Your task to perform on an android device: create a new album in the google photos Image 0: 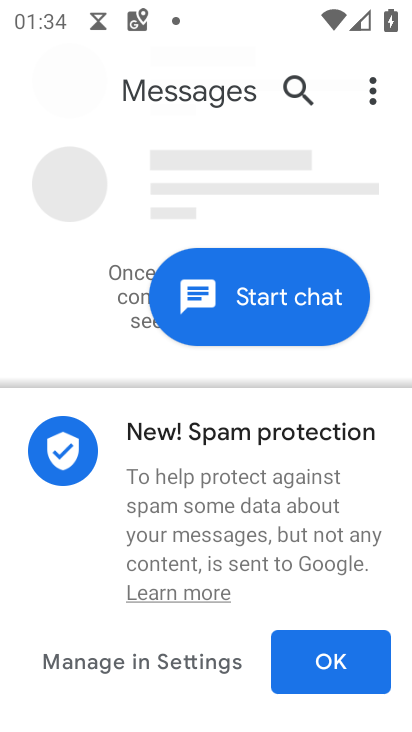
Step 0: press home button
Your task to perform on an android device: create a new album in the google photos Image 1: 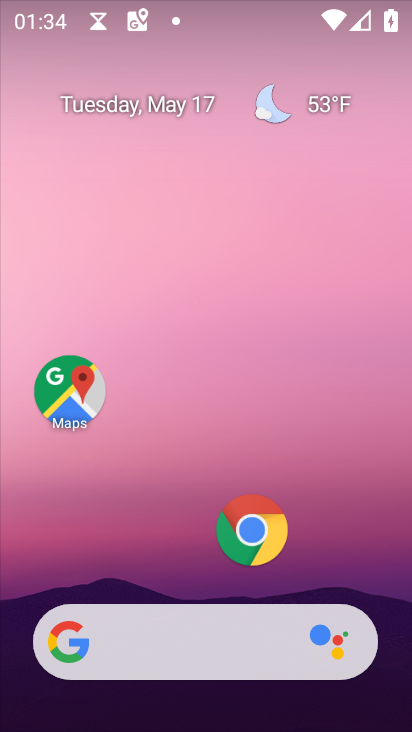
Step 1: drag from (317, 588) to (272, 148)
Your task to perform on an android device: create a new album in the google photos Image 2: 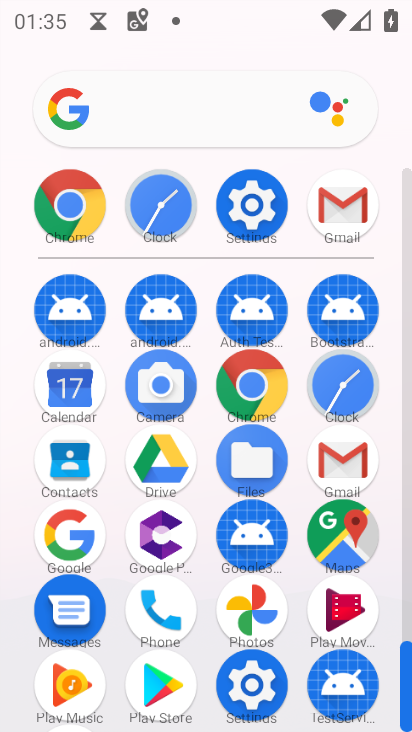
Step 2: click (260, 591)
Your task to perform on an android device: create a new album in the google photos Image 3: 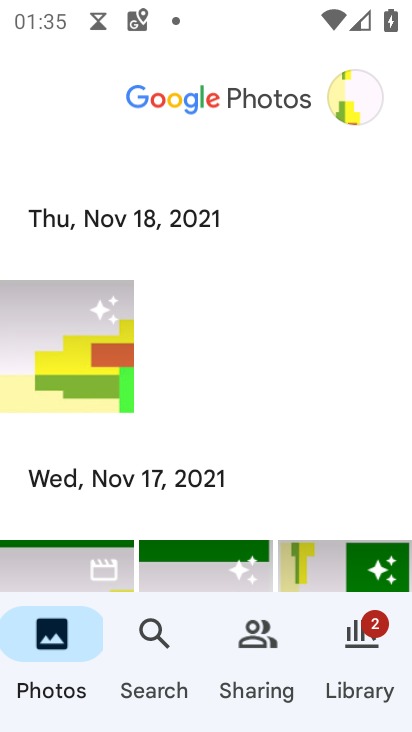
Step 3: click (367, 652)
Your task to perform on an android device: create a new album in the google photos Image 4: 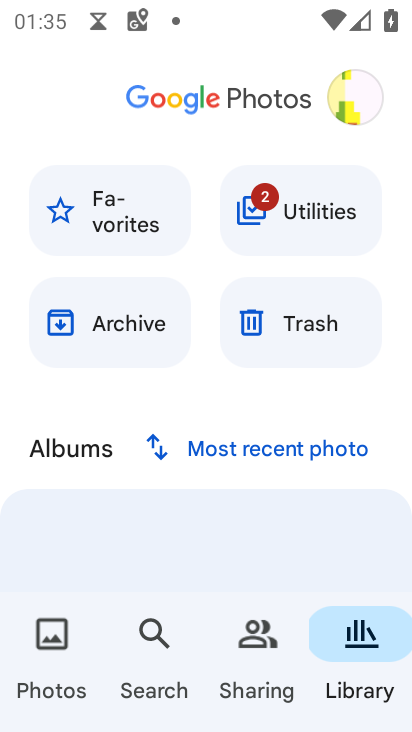
Step 4: drag from (224, 510) to (221, 178)
Your task to perform on an android device: create a new album in the google photos Image 5: 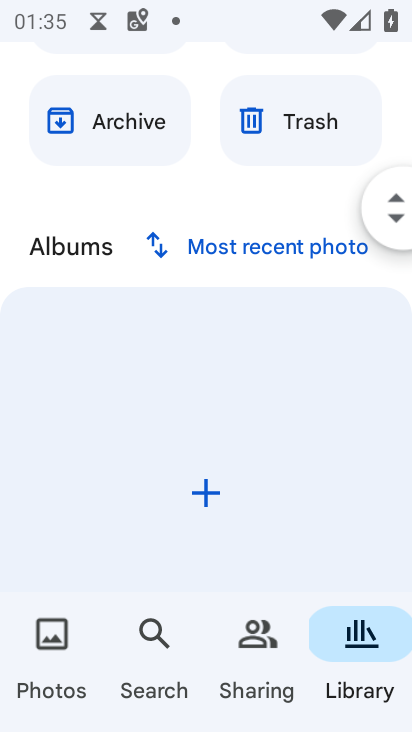
Step 5: click (199, 504)
Your task to perform on an android device: create a new album in the google photos Image 6: 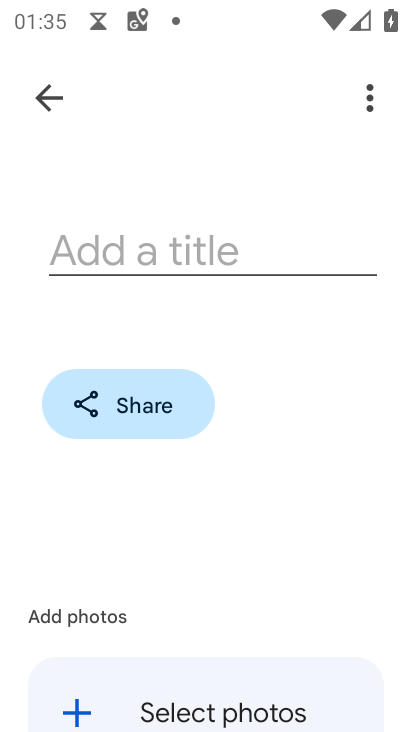
Step 6: click (132, 247)
Your task to perform on an android device: create a new album in the google photos Image 7: 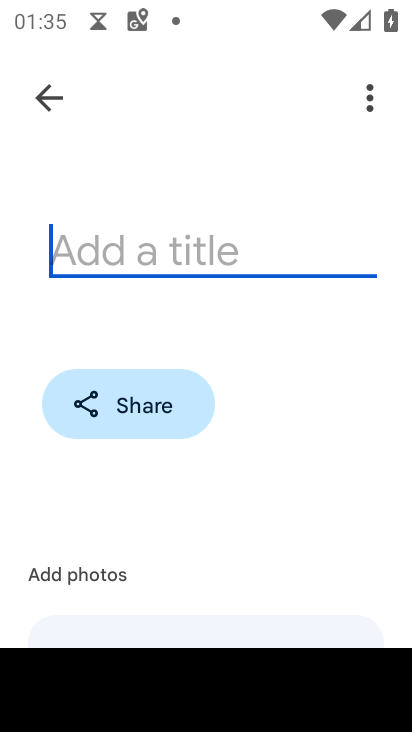
Step 7: type "dxfgx"
Your task to perform on an android device: create a new album in the google photos Image 8: 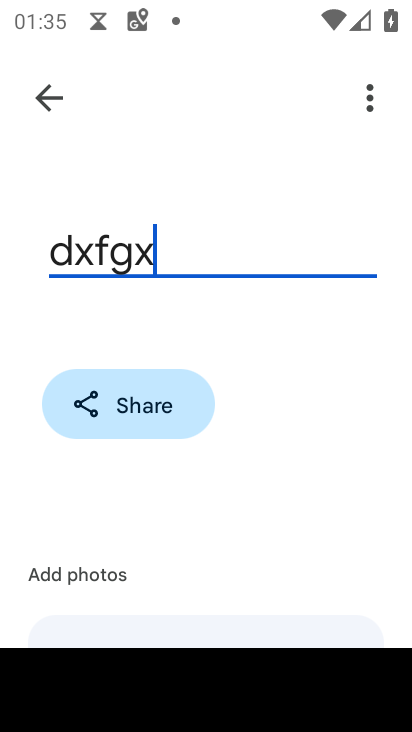
Step 8: drag from (195, 555) to (184, 375)
Your task to perform on an android device: create a new album in the google photos Image 9: 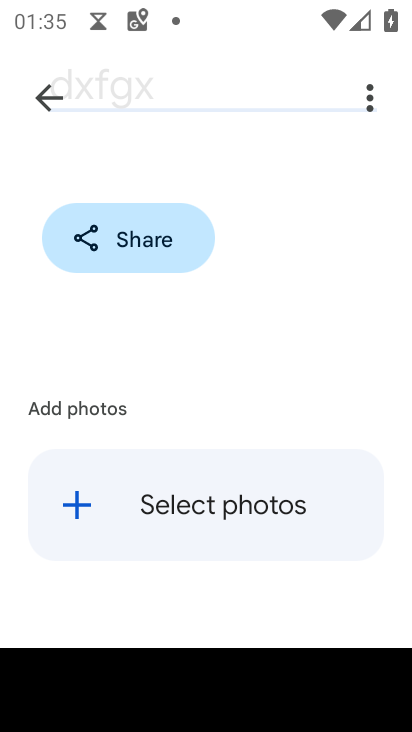
Step 9: click (80, 500)
Your task to perform on an android device: create a new album in the google photos Image 10: 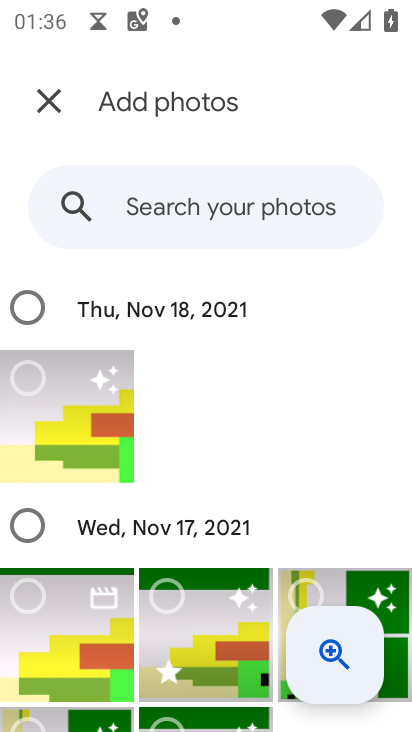
Step 10: click (22, 382)
Your task to perform on an android device: create a new album in the google photos Image 11: 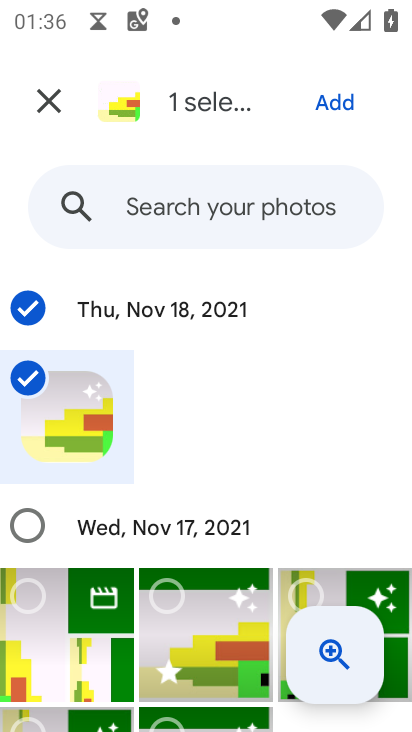
Step 11: click (34, 543)
Your task to perform on an android device: create a new album in the google photos Image 12: 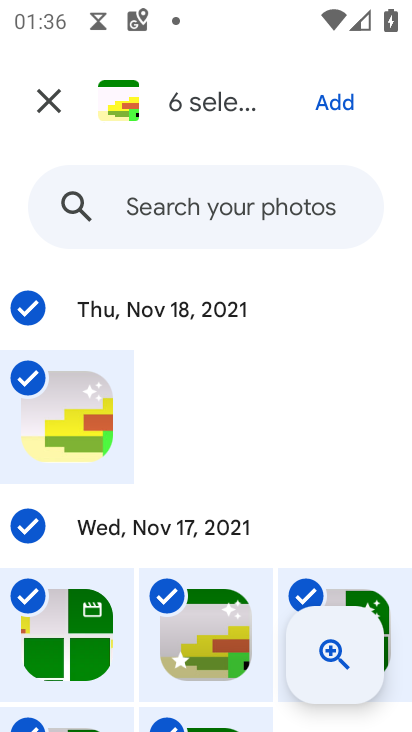
Step 12: click (346, 104)
Your task to perform on an android device: create a new album in the google photos Image 13: 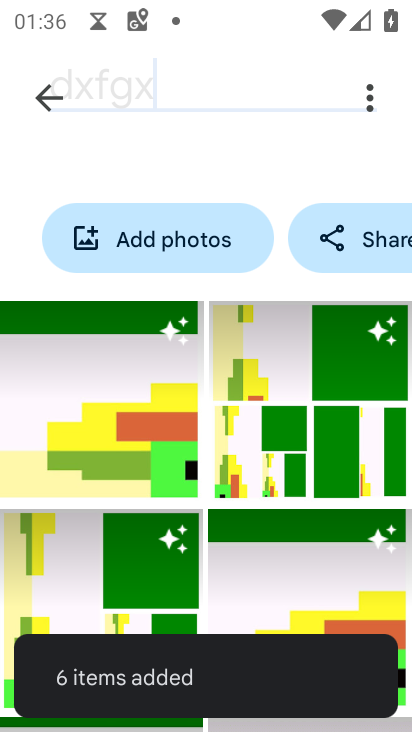
Step 13: task complete